Your task to perform on an android device: Toggle the flashlight Image 0: 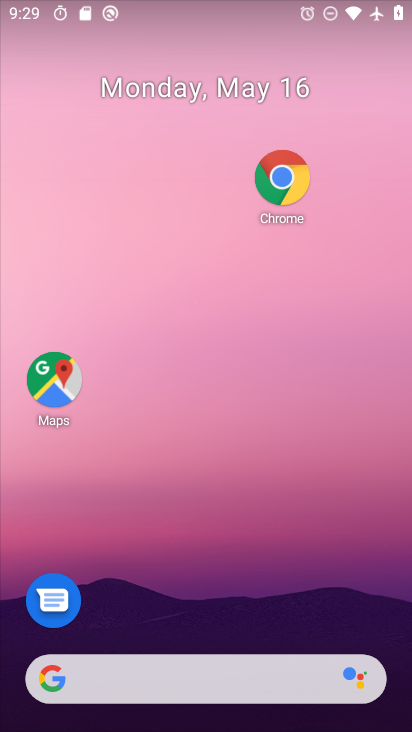
Step 0: drag from (267, 6) to (244, 332)
Your task to perform on an android device: Toggle the flashlight Image 1: 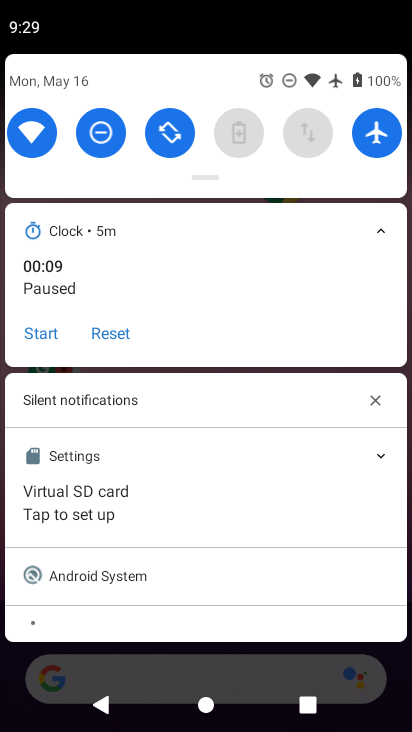
Step 1: task complete